Your task to perform on an android device: Open the phone app and click the voicemail tab. Image 0: 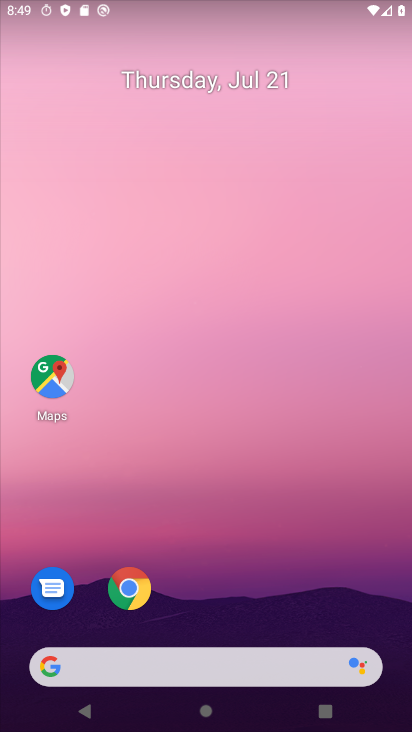
Step 0: drag from (233, 680) to (201, 183)
Your task to perform on an android device: Open the phone app and click the voicemail tab. Image 1: 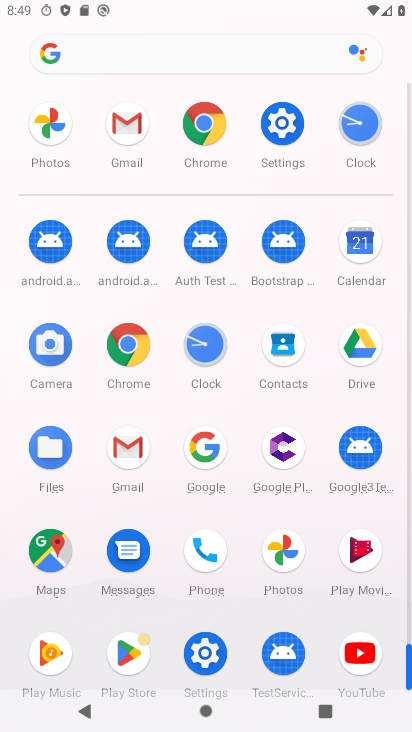
Step 1: click (196, 545)
Your task to perform on an android device: Open the phone app and click the voicemail tab. Image 2: 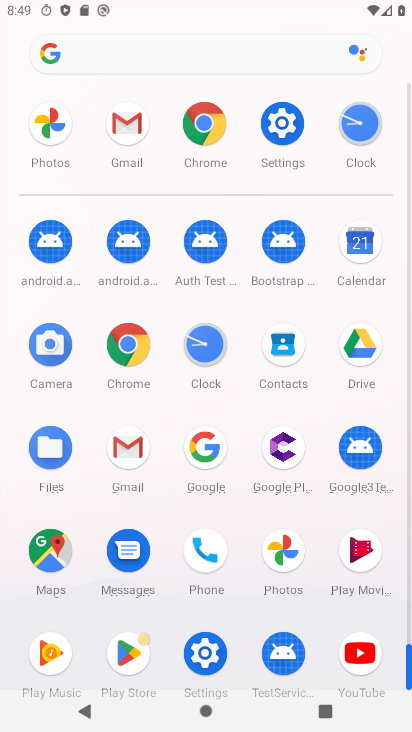
Step 2: click (196, 545)
Your task to perform on an android device: Open the phone app and click the voicemail tab. Image 3: 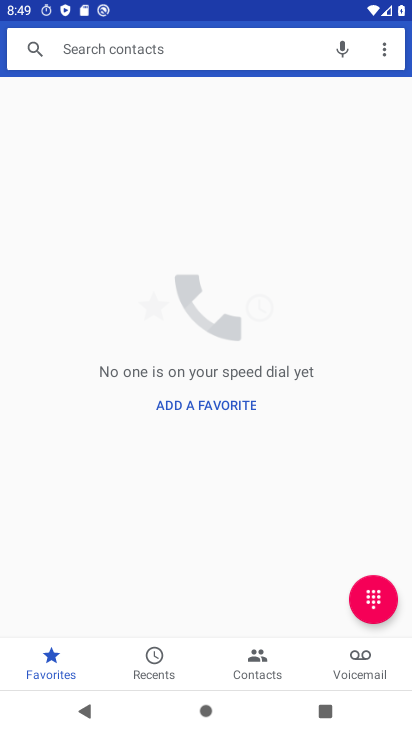
Step 3: click (359, 659)
Your task to perform on an android device: Open the phone app and click the voicemail tab. Image 4: 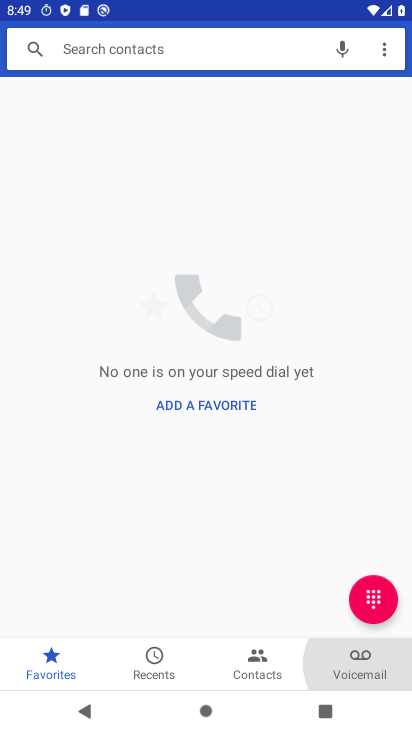
Step 4: click (359, 658)
Your task to perform on an android device: Open the phone app and click the voicemail tab. Image 5: 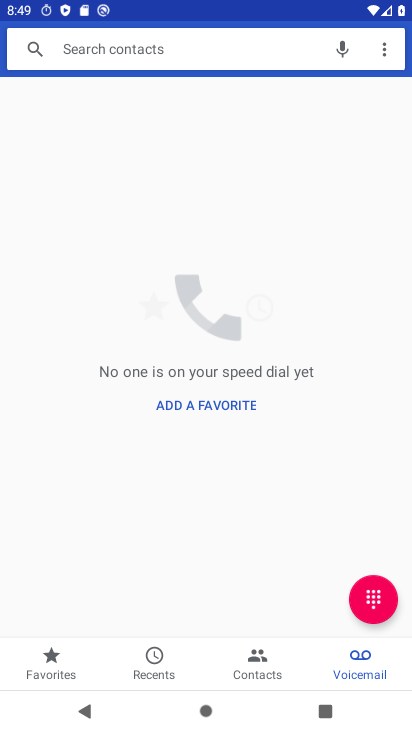
Step 5: click (360, 657)
Your task to perform on an android device: Open the phone app and click the voicemail tab. Image 6: 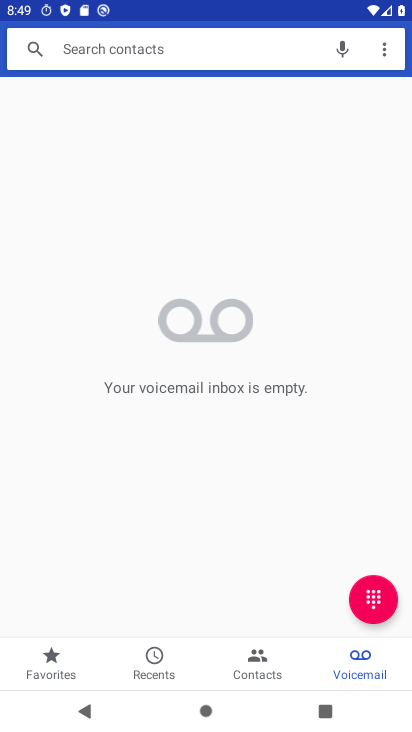
Step 6: task complete